Your task to perform on an android device: Go to CNN.com Image 0: 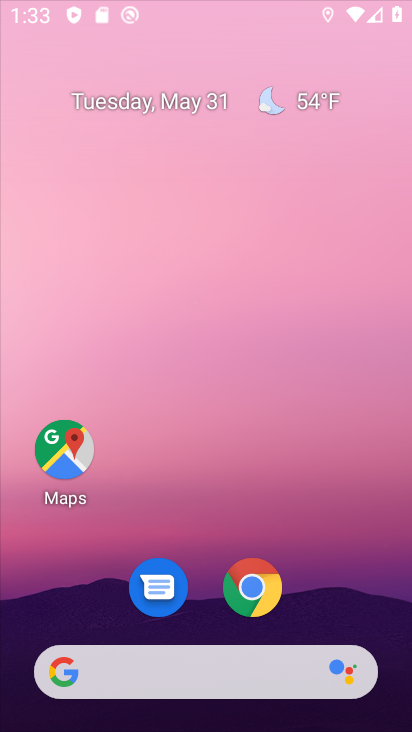
Step 0: click (227, 64)
Your task to perform on an android device: Go to CNN.com Image 1: 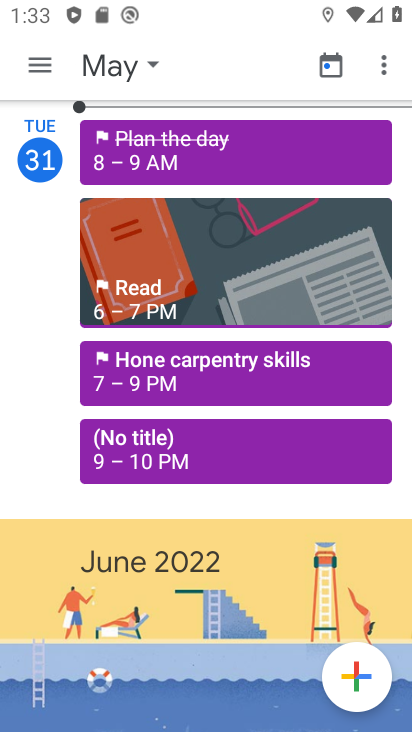
Step 1: drag from (205, 639) to (239, 213)
Your task to perform on an android device: Go to CNN.com Image 2: 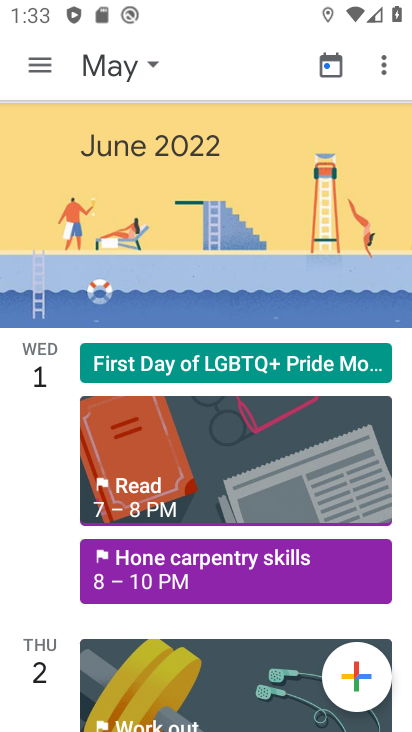
Step 2: press home button
Your task to perform on an android device: Go to CNN.com Image 3: 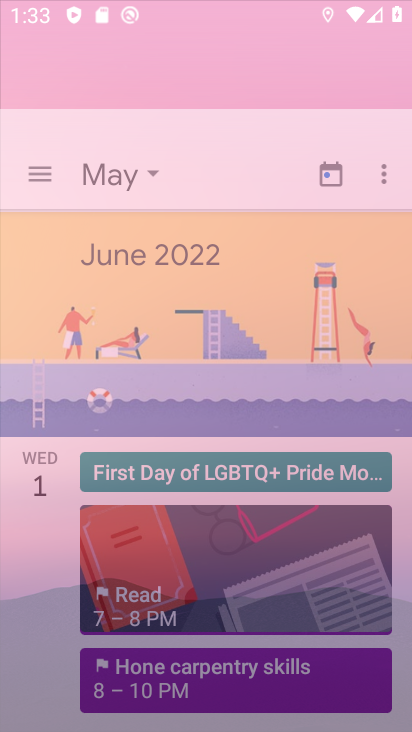
Step 3: drag from (141, 653) to (217, 123)
Your task to perform on an android device: Go to CNN.com Image 4: 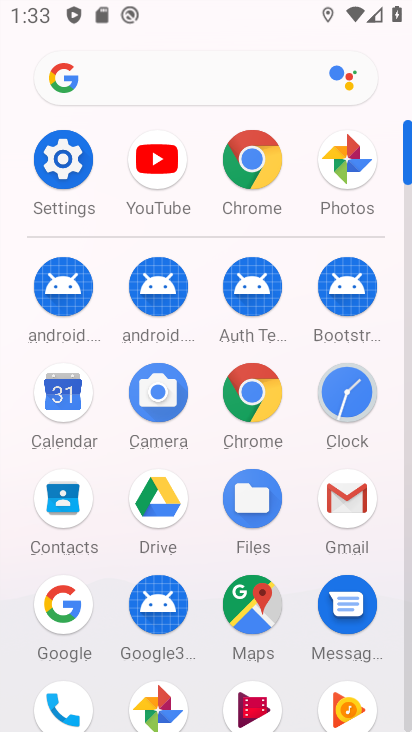
Step 4: click (248, 155)
Your task to perform on an android device: Go to CNN.com Image 5: 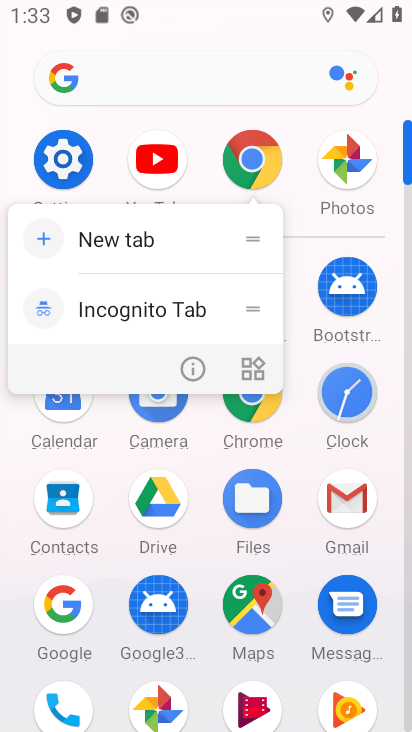
Step 5: click (183, 374)
Your task to perform on an android device: Go to CNN.com Image 6: 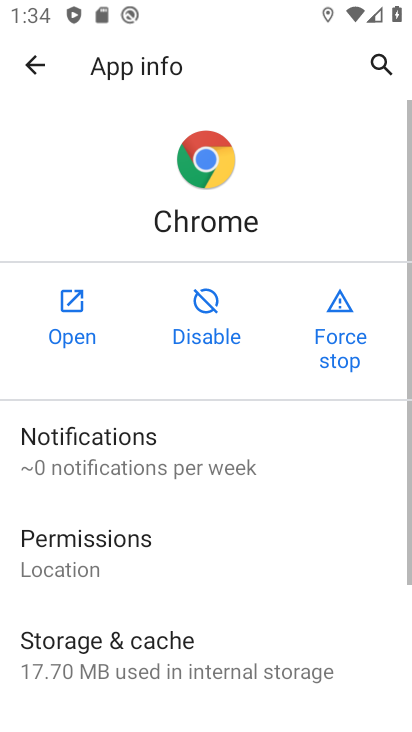
Step 6: click (73, 287)
Your task to perform on an android device: Go to CNN.com Image 7: 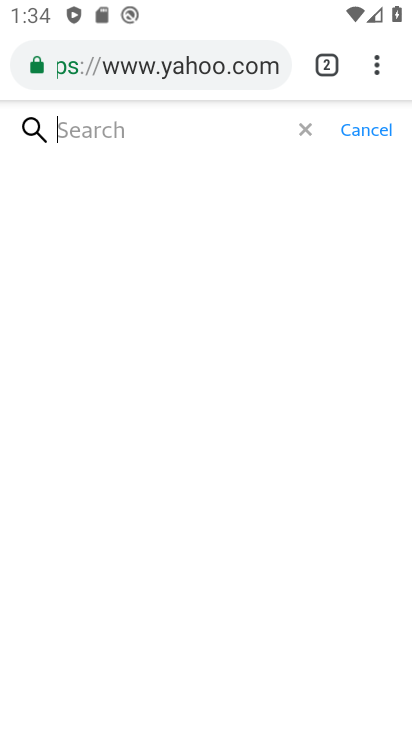
Step 7: click (324, 73)
Your task to perform on an android device: Go to CNN.com Image 8: 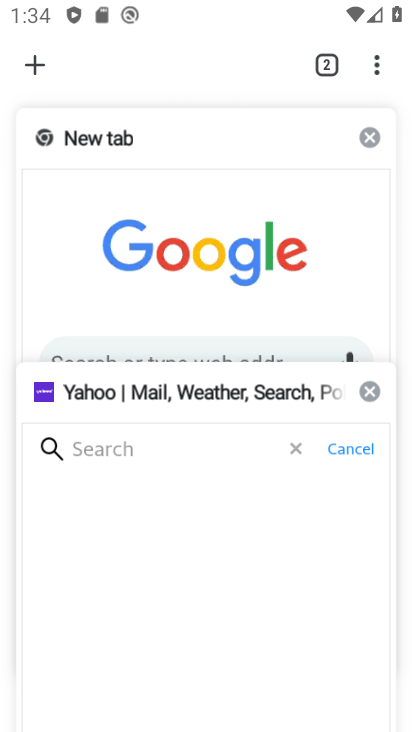
Step 8: click (364, 392)
Your task to perform on an android device: Go to CNN.com Image 9: 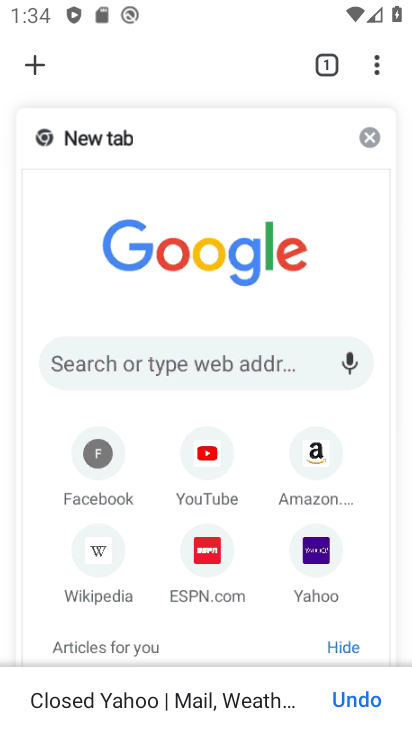
Step 9: click (32, 65)
Your task to perform on an android device: Go to CNN.com Image 10: 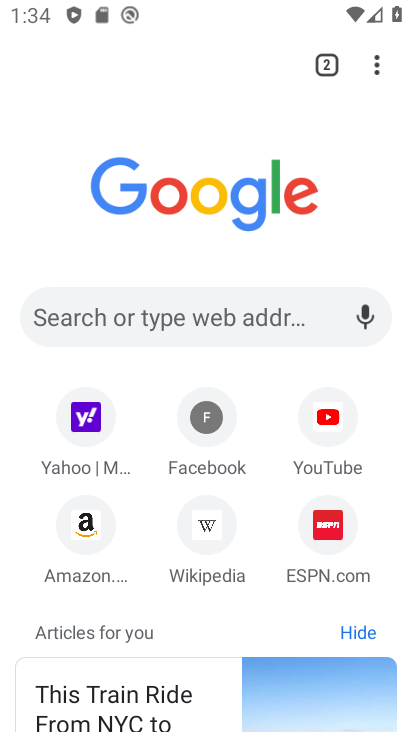
Step 10: click (130, 331)
Your task to perform on an android device: Go to CNN.com Image 11: 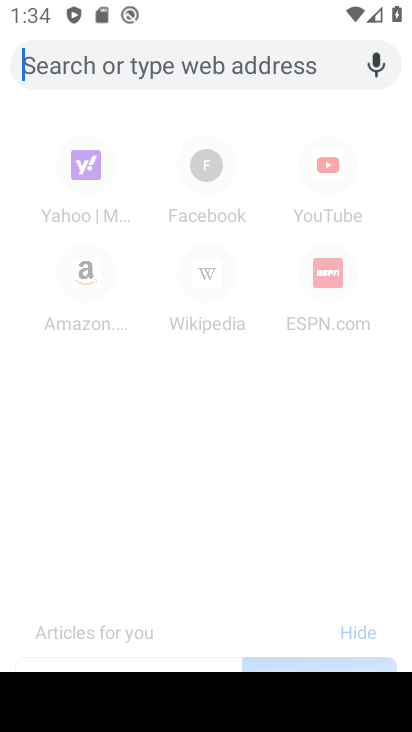
Step 11: type "CNN.com"
Your task to perform on an android device: Go to CNN.com Image 12: 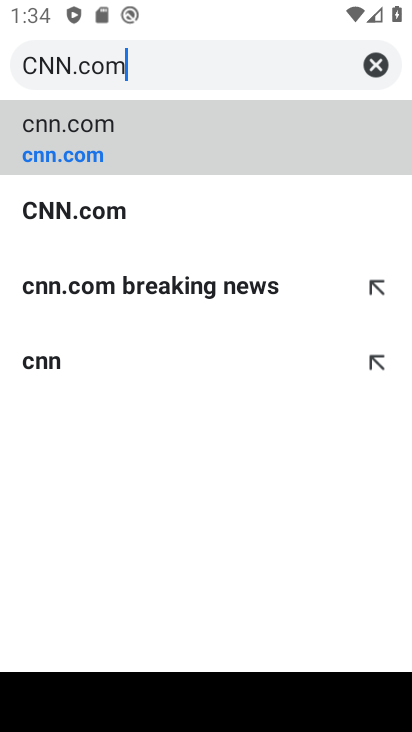
Step 12: type ""
Your task to perform on an android device: Go to CNN.com Image 13: 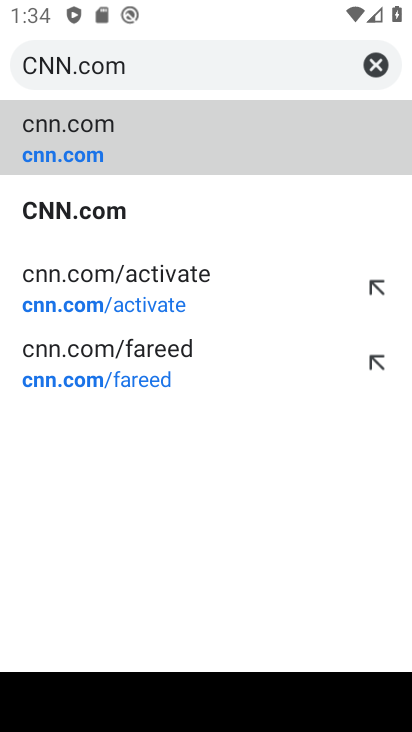
Step 13: click (78, 147)
Your task to perform on an android device: Go to CNN.com Image 14: 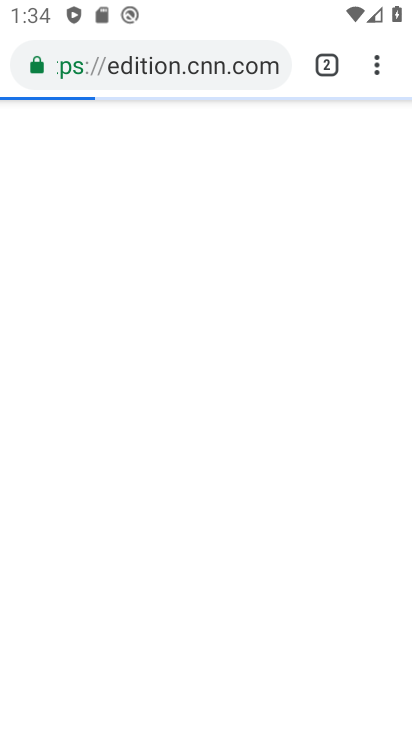
Step 14: task complete